Your task to perform on an android device: Look up the best rated coffee maker on Lowe's. Image 0: 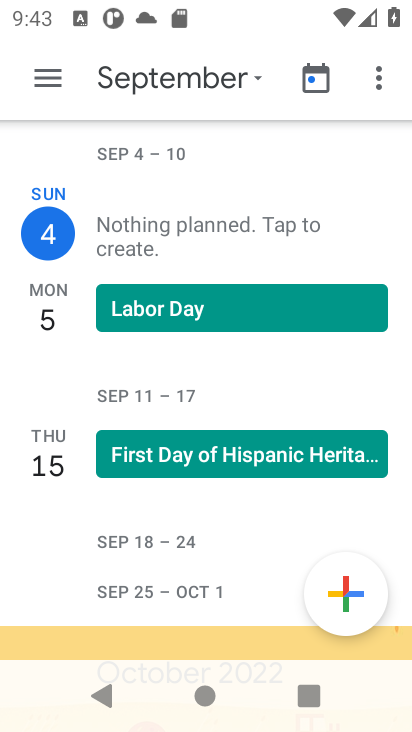
Step 0: press home button
Your task to perform on an android device: Look up the best rated coffee maker on Lowe's. Image 1: 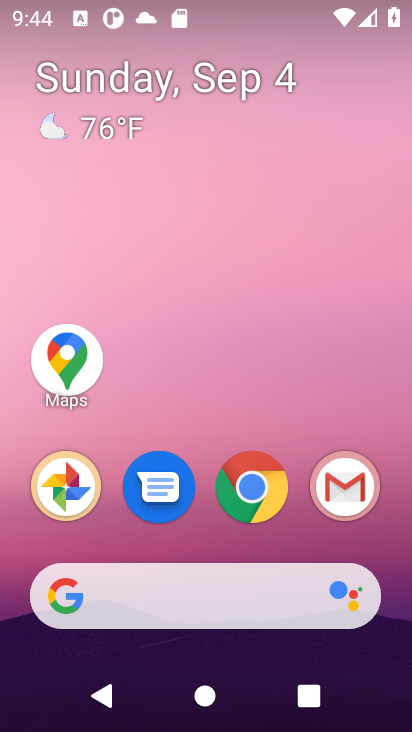
Step 1: click (165, 585)
Your task to perform on an android device: Look up the best rated coffee maker on Lowe's. Image 2: 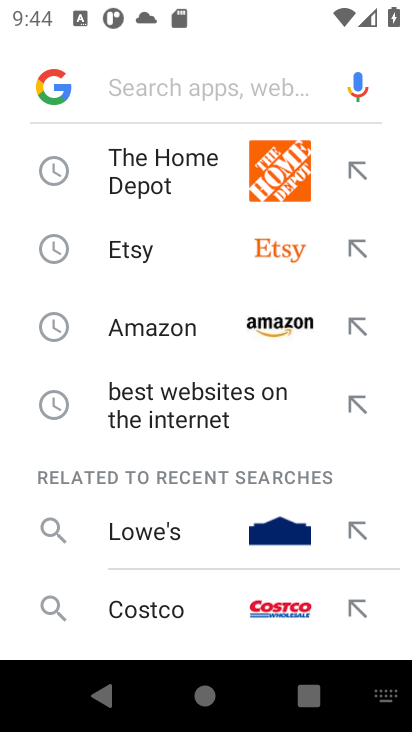
Step 2: type " Lowe's"
Your task to perform on an android device: Look up the best rated coffee maker on Lowe's. Image 3: 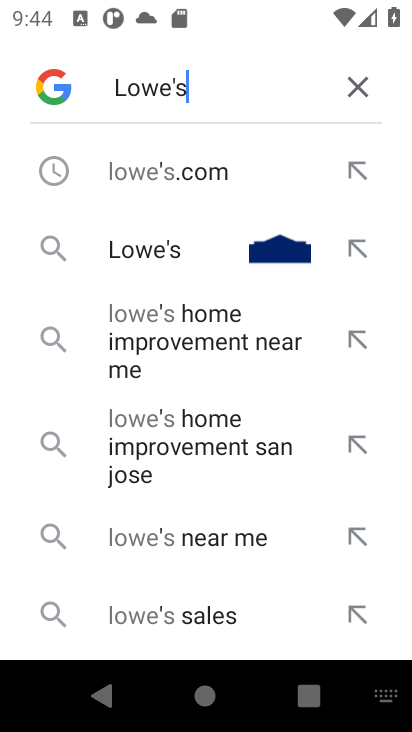
Step 3: click (189, 154)
Your task to perform on an android device: Look up the best rated coffee maker on Lowe's. Image 4: 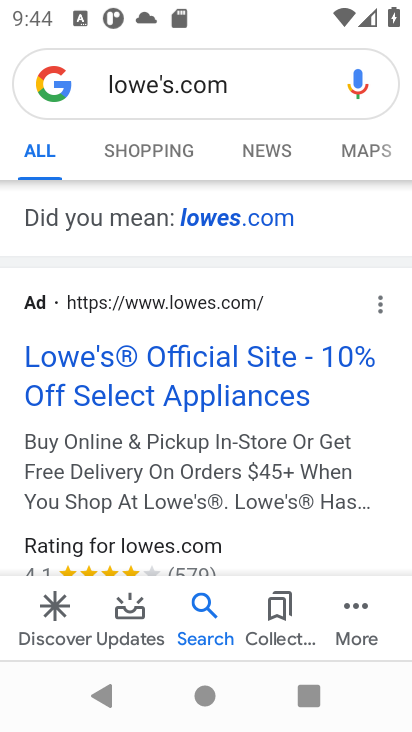
Step 4: drag from (318, 550) to (366, 104)
Your task to perform on an android device: Look up the best rated coffee maker on Lowe's. Image 5: 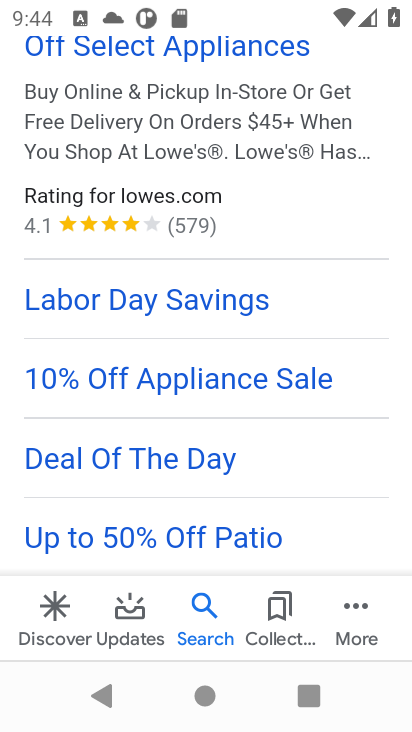
Step 5: click (247, 50)
Your task to perform on an android device: Look up the best rated coffee maker on Lowe's. Image 6: 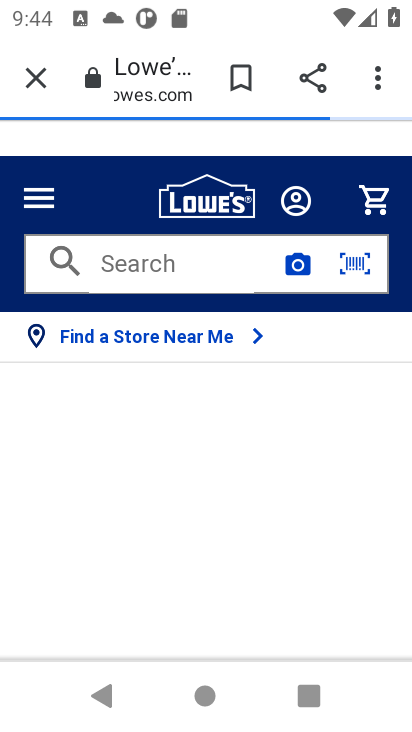
Step 6: click (175, 268)
Your task to perform on an android device: Look up the best rated coffee maker on Lowe's. Image 7: 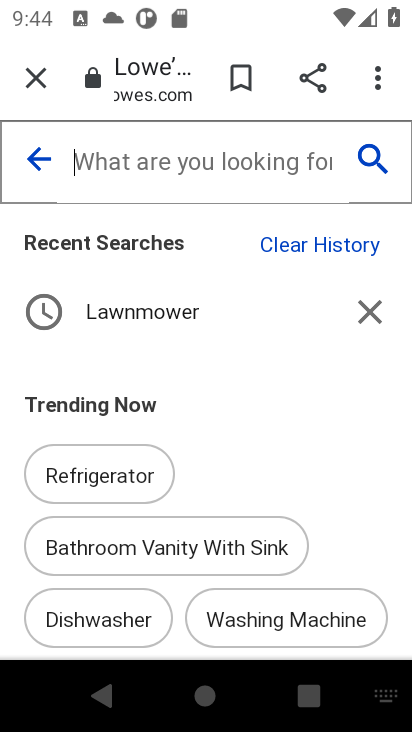
Step 7: type "coffee maker"
Your task to perform on an android device: Look up the best rated coffee maker on Lowe's. Image 8: 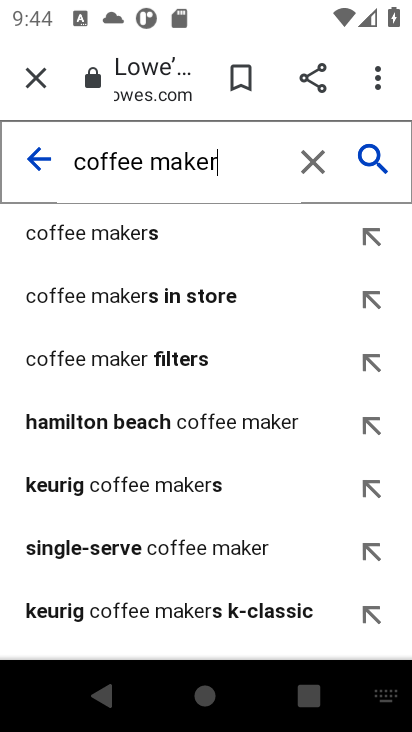
Step 8: click (170, 247)
Your task to perform on an android device: Look up the best rated coffee maker on Lowe's. Image 9: 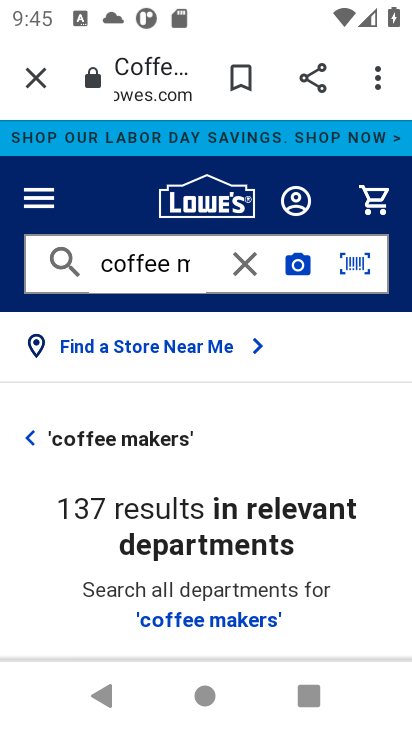
Step 9: task complete